Your task to perform on an android device: Find coffee shops on Maps Image 0: 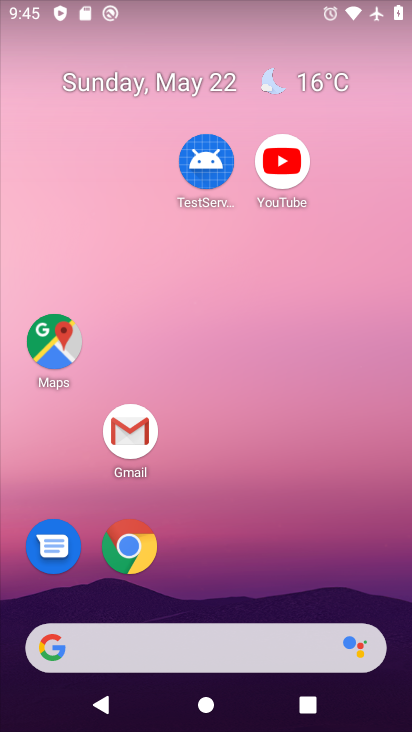
Step 0: drag from (270, 695) to (245, 205)
Your task to perform on an android device: Find coffee shops on Maps Image 1: 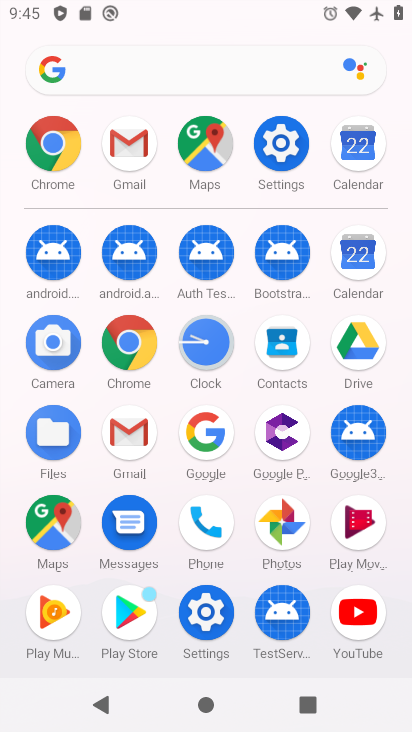
Step 1: click (64, 519)
Your task to perform on an android device: Find coffee shops on Maps Image 2: 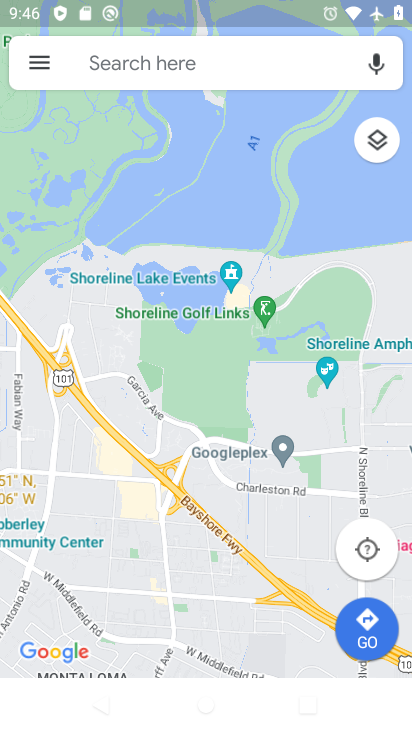
Step 2: click (106, 56)
Your task to perform on an android device: Find coffee shops on Maps Image 3: 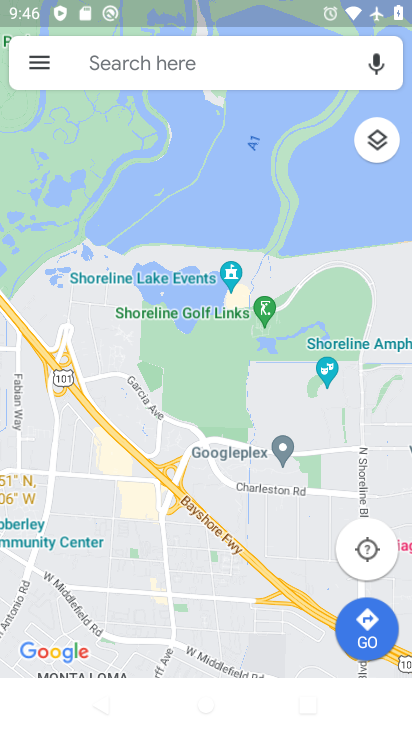
Step 3: click (106, 56)
Your task to perform on an android device: Find coffee shops on Maps Image 4: 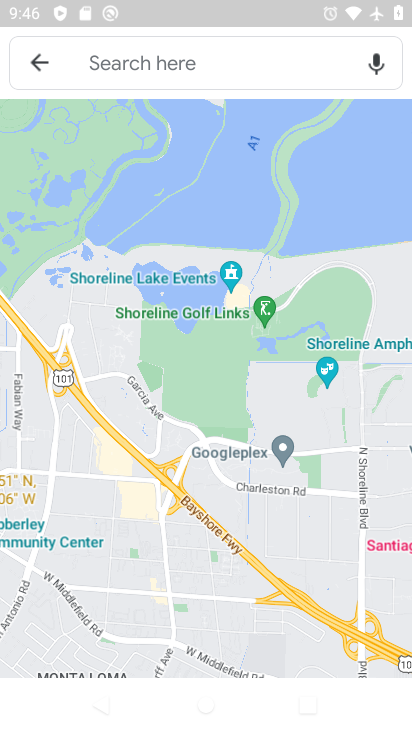
Step 4: click (106, 54)
Your task to perform on an android device: Find coffee shops on Maps Image 5: 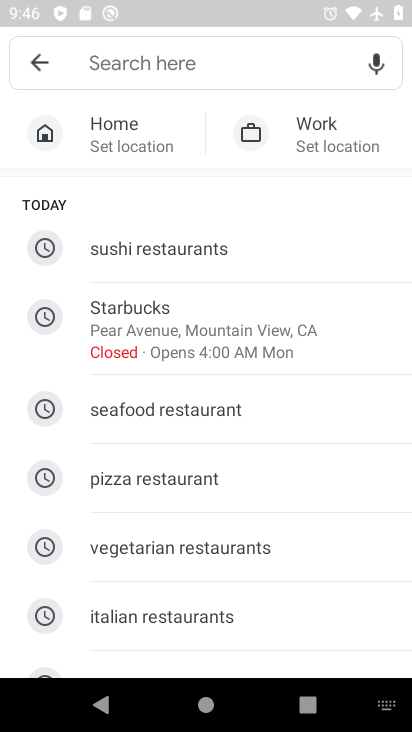
Step 5: click (107, 53)
Your task to perform on an android device: Find coffee shops on Maps Image 6: 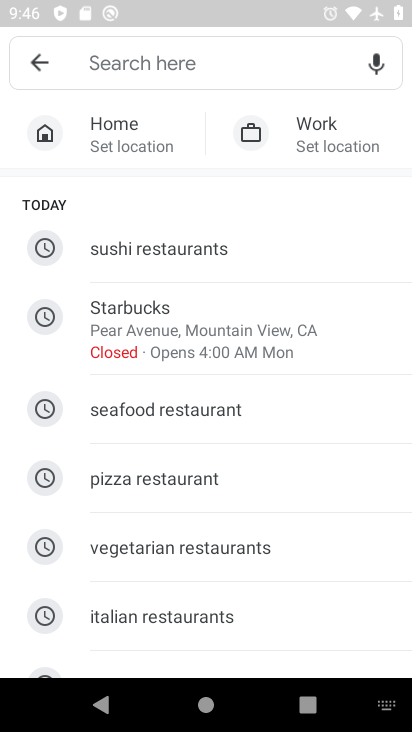
Step 6: type "coffee"
Your task to perform on an android device: Find coffee shops on Maps Image 7: 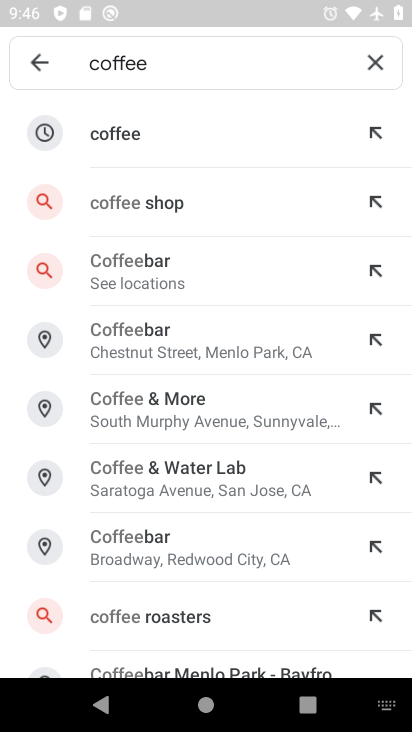
Step 7: click (110, 140)
Your task to perform on an android device: Find coffee shops on Maps Image 8: 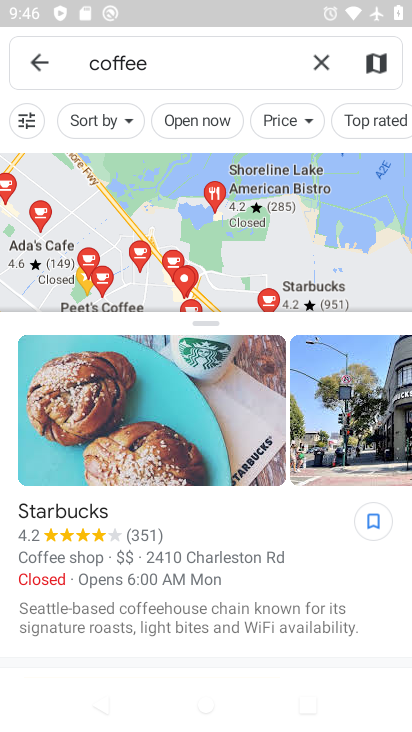
Step 8: task complete